Your task to perform on an android device: Search for the best rated headphones on AliExpress. Image 0: 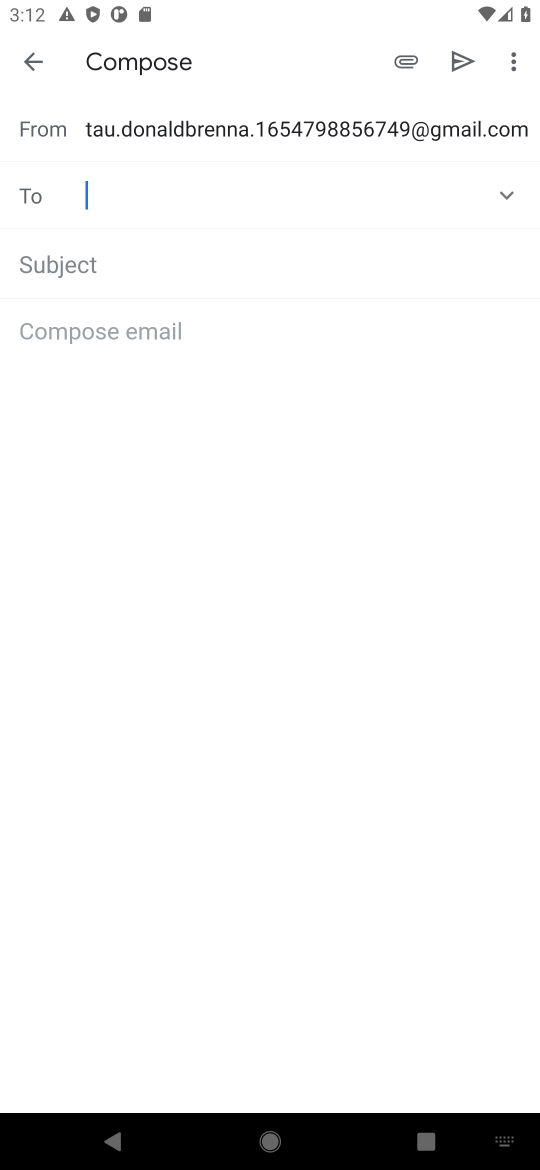
Step 0: press home button
Your task to perform on an android device: Search for the best rated headphones on AliExpress. Image 1: 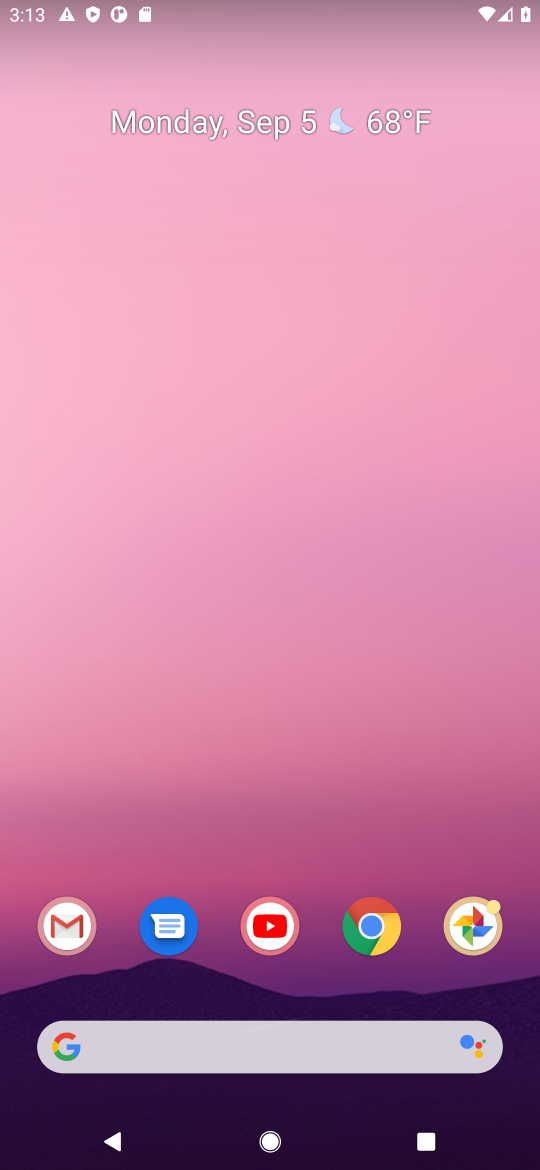
Step 1: click (377, 920)
Your task to perform on an android device: Search for the best rated headphones on AliExpress. Image 2: 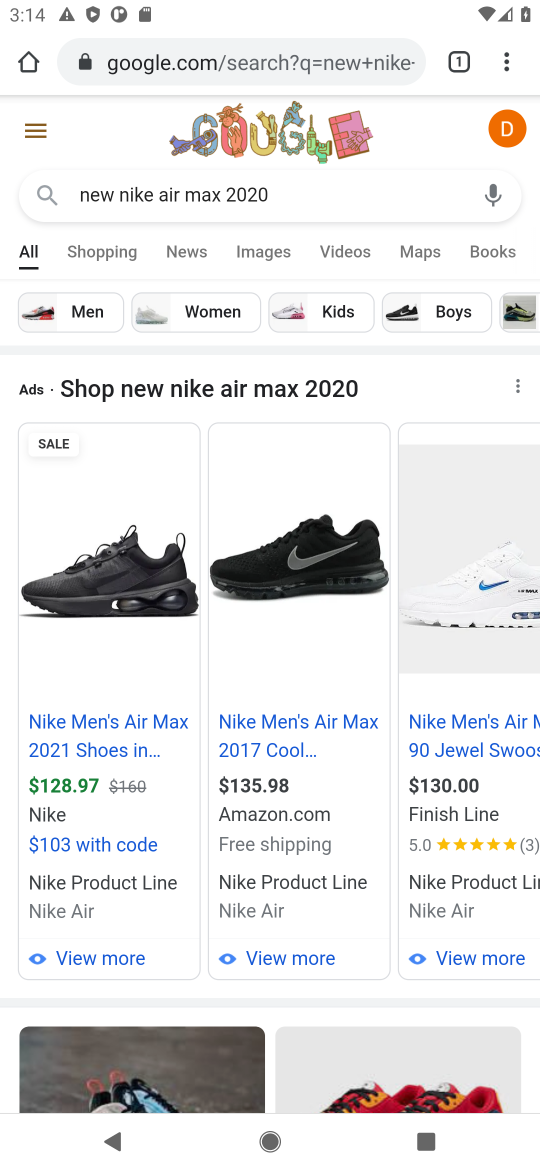
Step 2: click (214, 60)
Your task to perform on an android device: Search for the best rated headphones on AliExpress. Image 3: 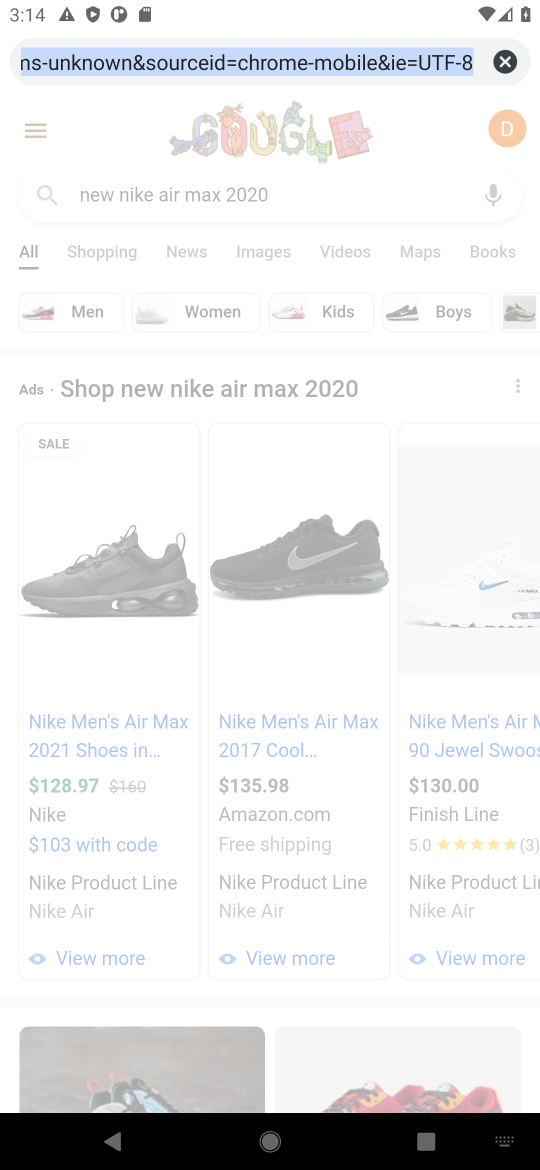
Step 3: type "aliexpress"
Your task to perform on an android device: Search for the best rated headphones on AliExpress. Image 4: 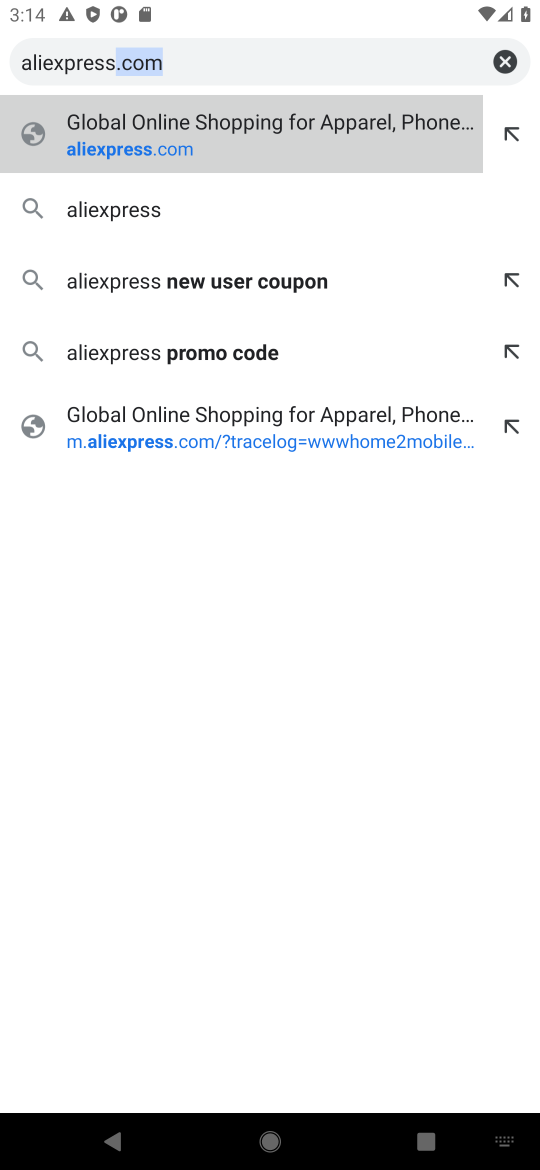
Step 4: click (272, 132)
Your task to perform on an android device: Search for the best rated headphones on AliExpress. Image 5: 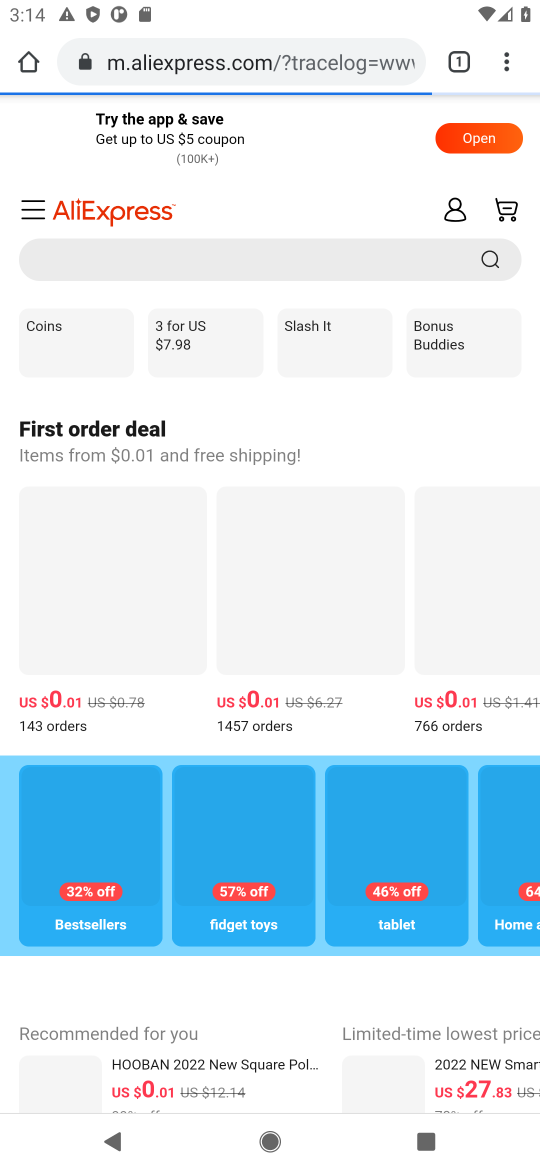
Step 5: task complete